Your task to perform on an android device: Open maps Image 0: 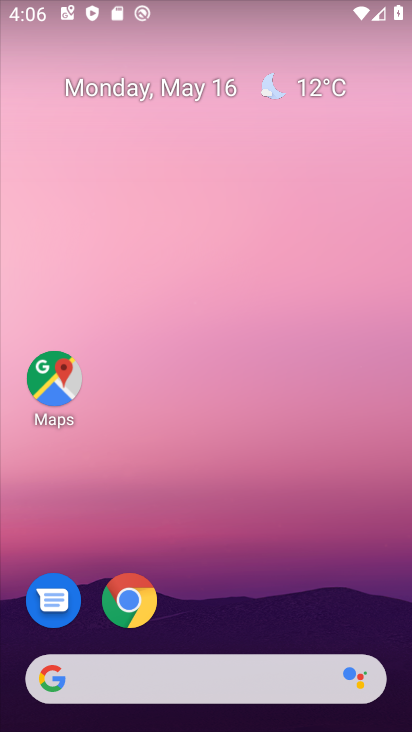
Step 0: drag from (199, 646) to (177, 199)
Your task to perform on an android device: Open maps Image 1: 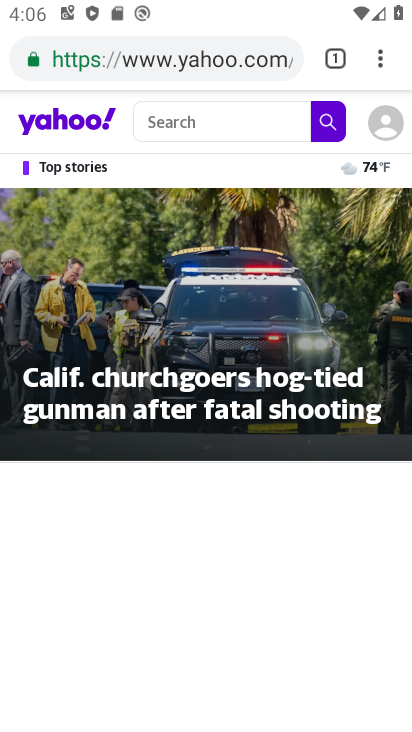
Step 1: click (378, 57)
Your task to perform on an android device: Open maps Image 2: 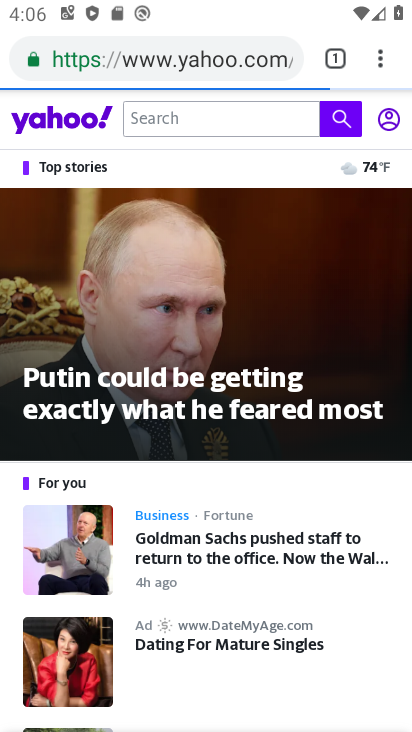
Step 2: press home button
Your task to perform on an android device: Open maps Image 3: 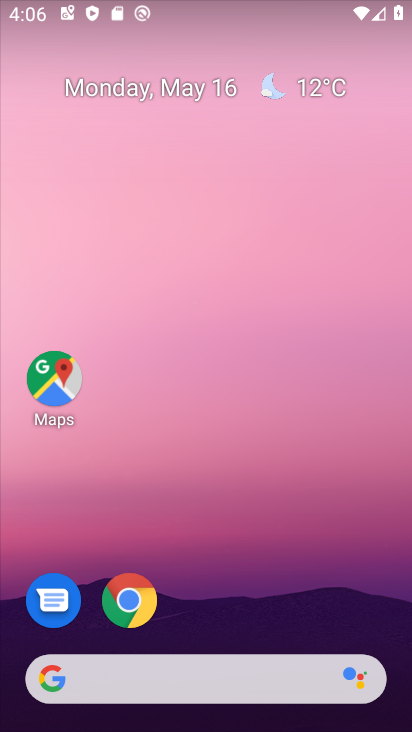
Step 3: drag from (168, 669) to (141, 299)
Your task to perform on an android device: Open maps Image 4: 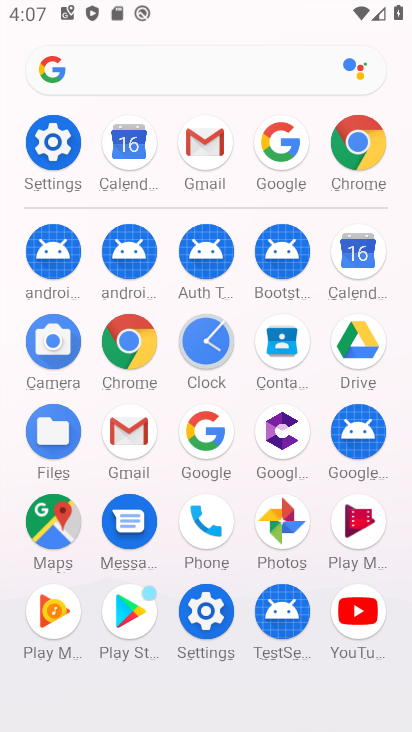
Step 4: click (56, 518)
Your task to perform on an android device: Open maps Image 5: 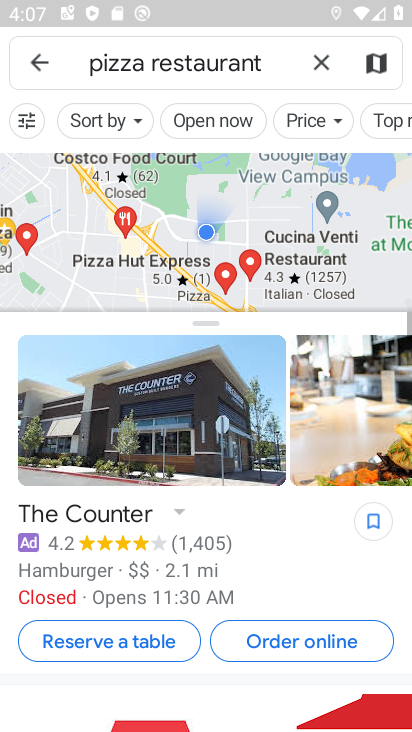
Step 5: click (313, 64)
Your task to perform on an android device: Open maps Image 6: 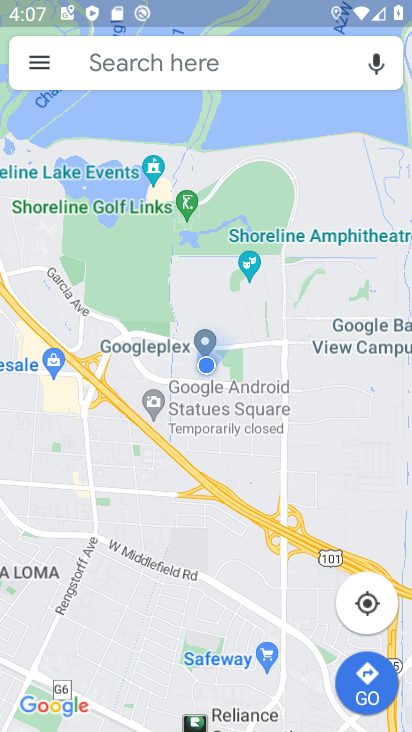
Step 6: task complete